Your task to perform on an android device: toggle translation in the chrome app Image 0: 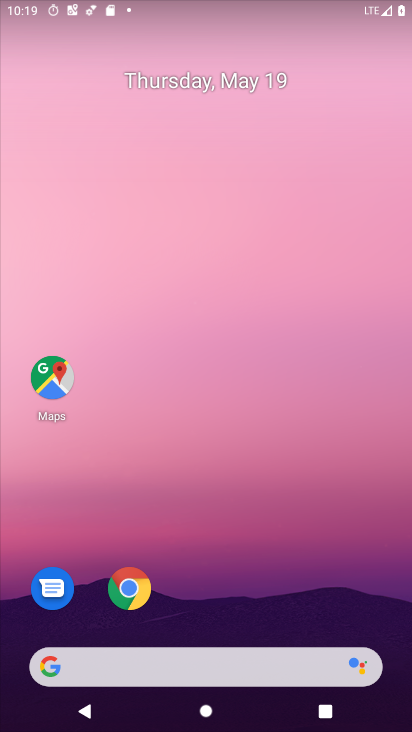
Step 0: click (137, 587)
Your task to perform on an android device: toggle translation in the chrome app Image 1: 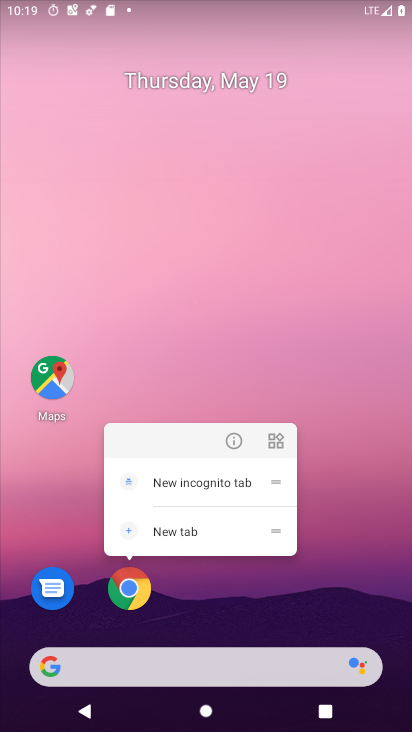
Step 1: click (124, 602)
Your task to perform on an android device: toggle translation in the chrome app Image 2: 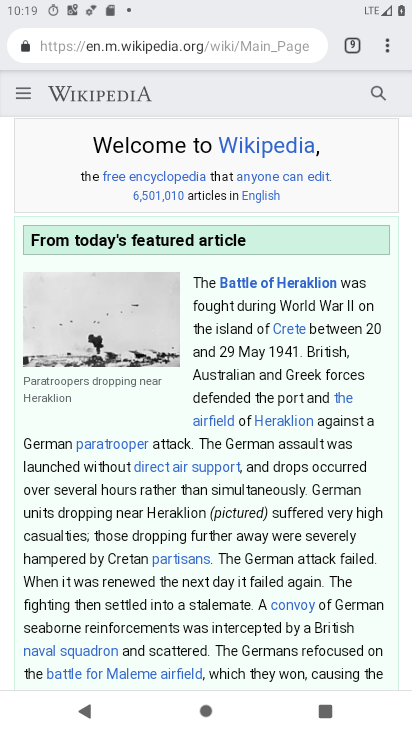
Step 2: drag from (385, 45) to (249, 558)
Your task to perform on an android device: toggle translation in the chrome app Image 3: 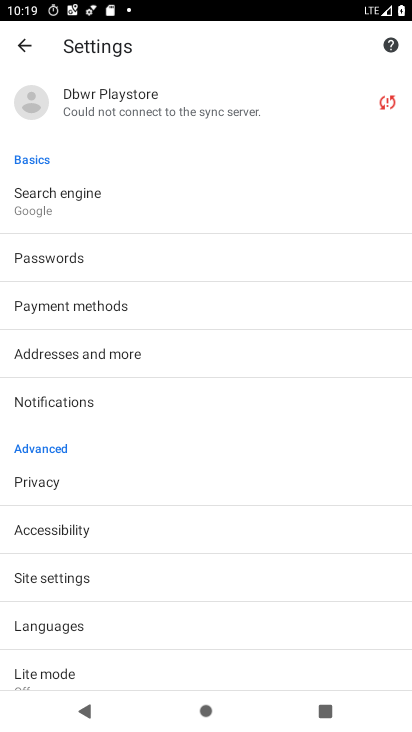
Step 3: drag from (149, 604) to (233, 402)
Your task to perform on an android device: toggle translation in the chrome app Image 4: 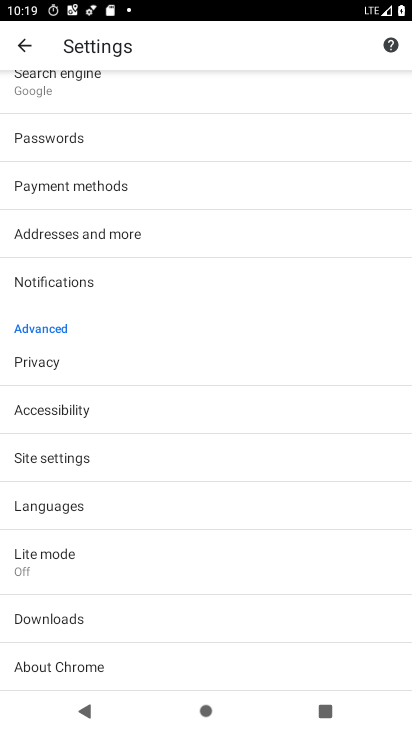
Step 4: click (112, 501)
Your task to perform on an android device: toggle translation in the chrome app Image 5: 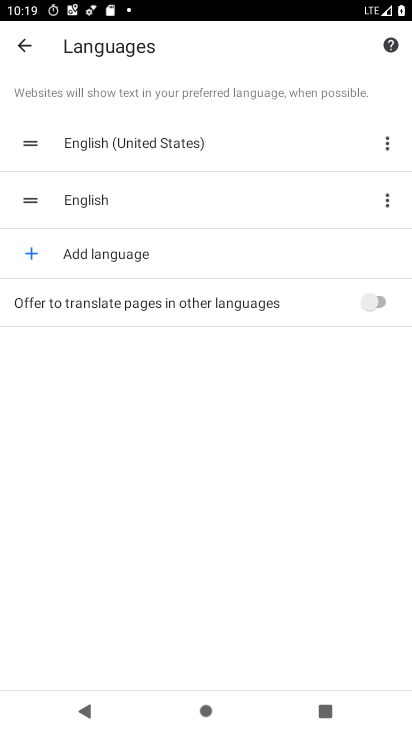
Step 5: click (382, 300)
Your task to perform on an android device: toggle translation in the chrome app Image 6: 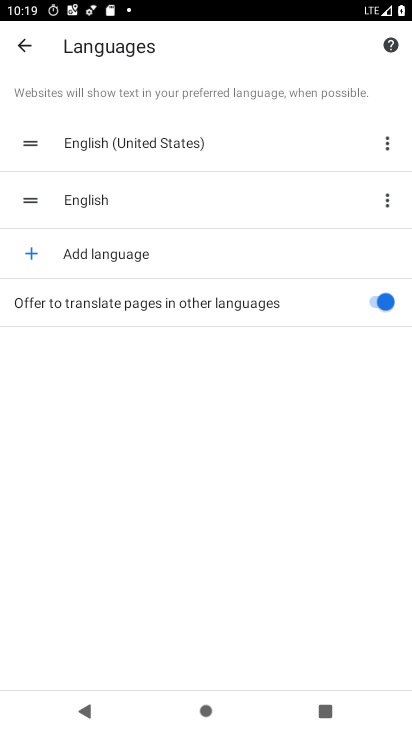
Step 6: task complete